Your task to perform on an android device: turn off location history Image 0: 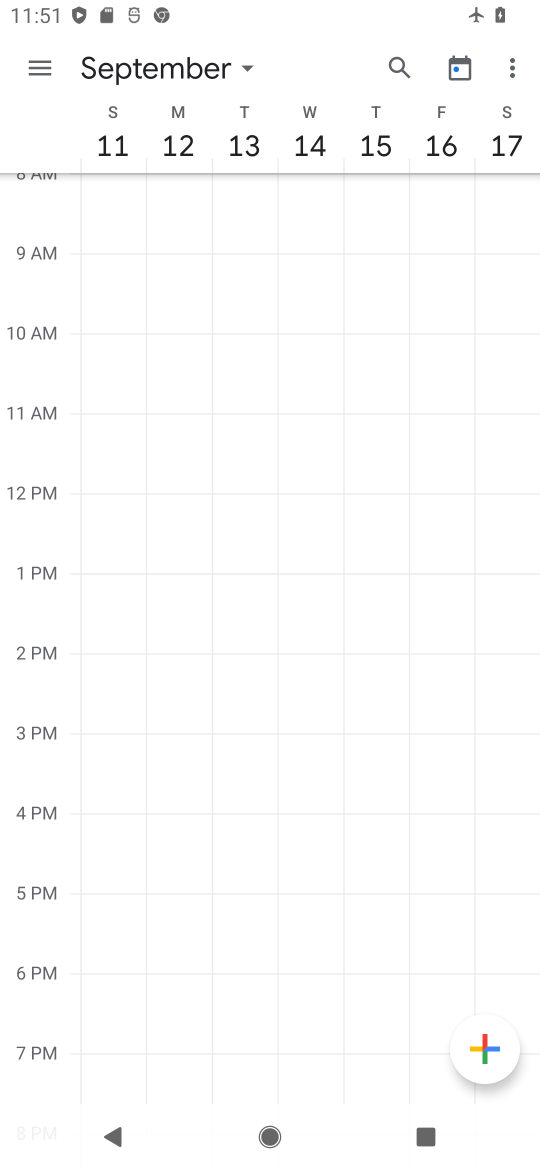
Step 0: press home button
Your task to perform on an android device: turn off location history Image 1: 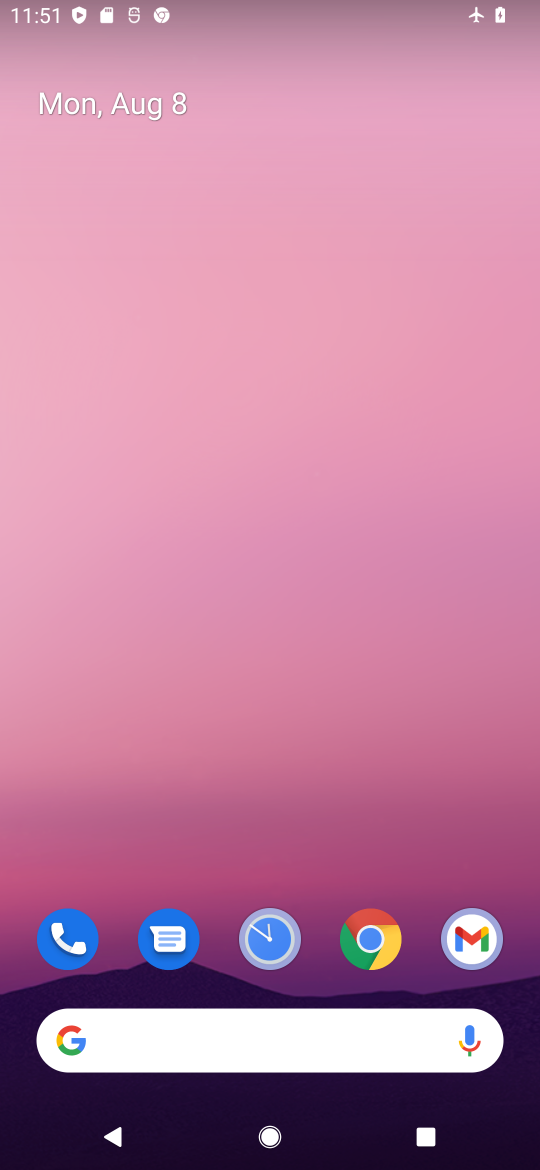
Step 1: drag from (201, 1025) to (439, 48)
Your task to perform on an android device: turn off location history Image 2: 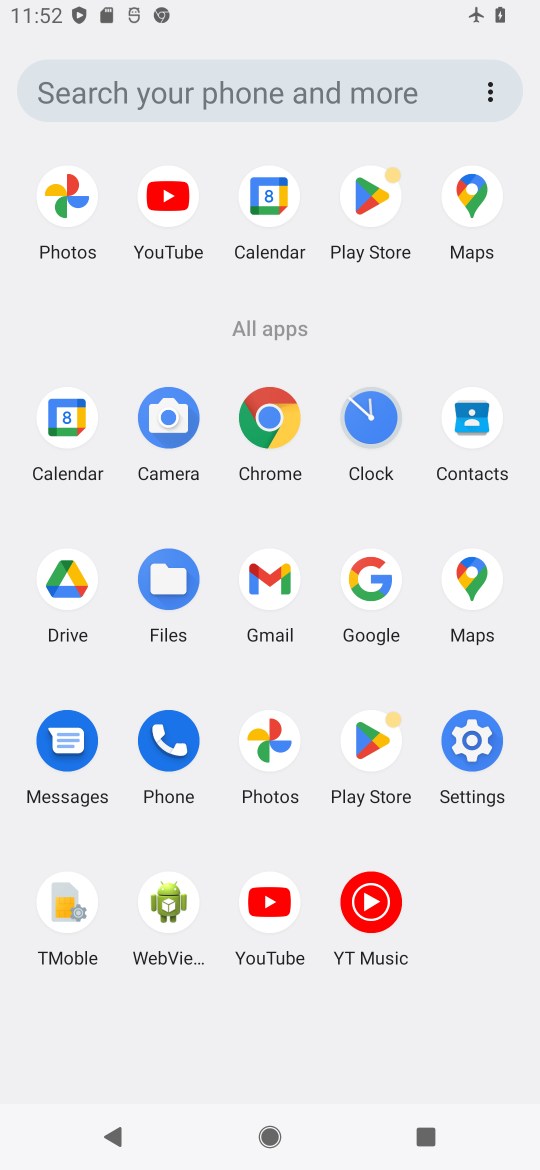
Step 2: click (472, 733)
Your task to perform on an android device: turn off location history Image 3: 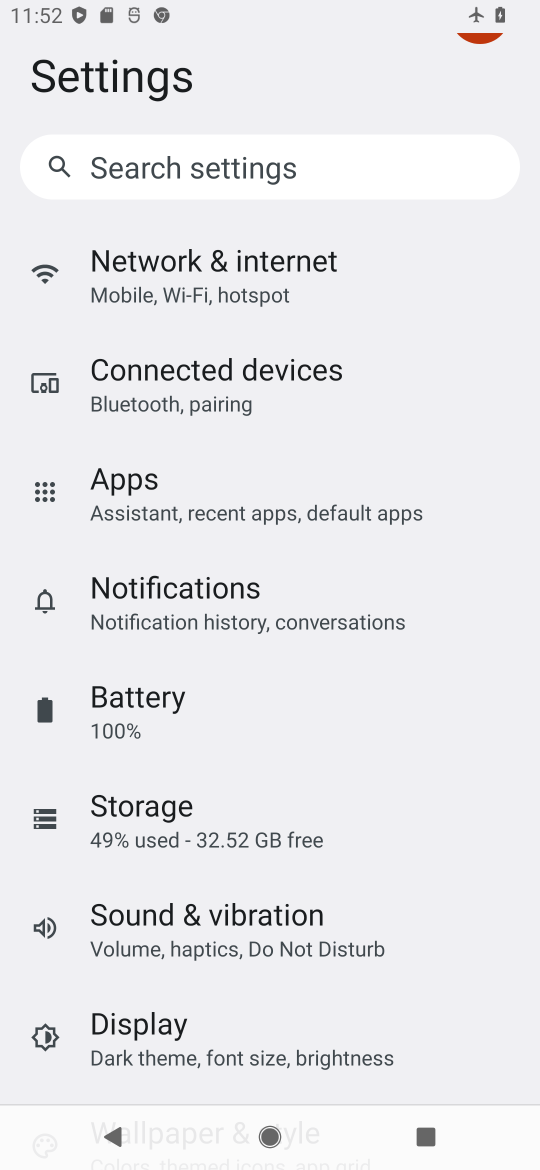
Step 3: drag from (182, 1032) to (346, 835)
Your task to perform on an android device: turn off location history Image 4: 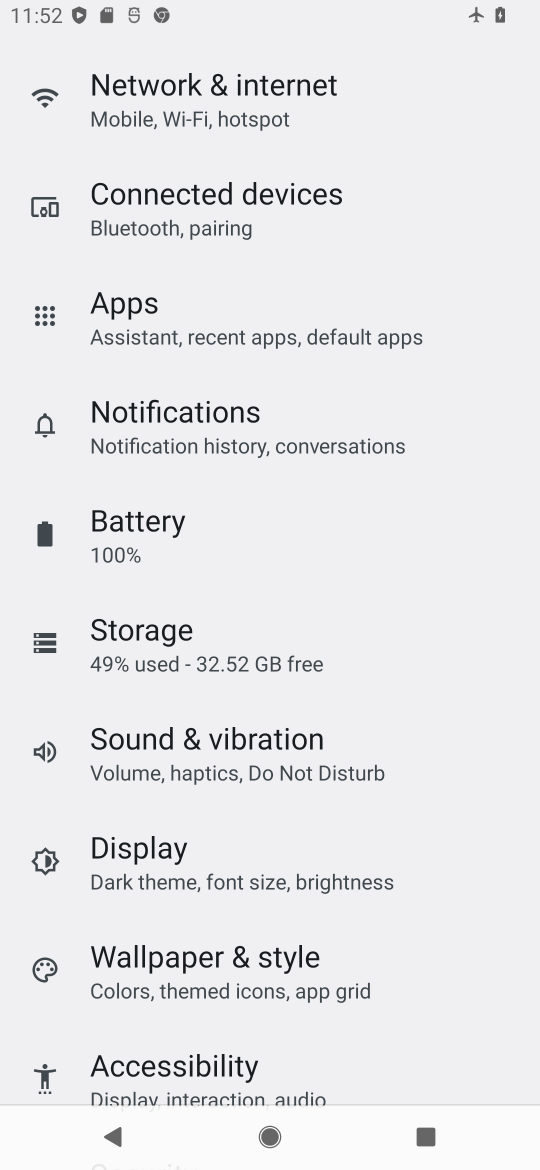
Step 4: drag from (190, 944) to (315, 752)
Your task to perform on an android device: turn off location history Image 5: 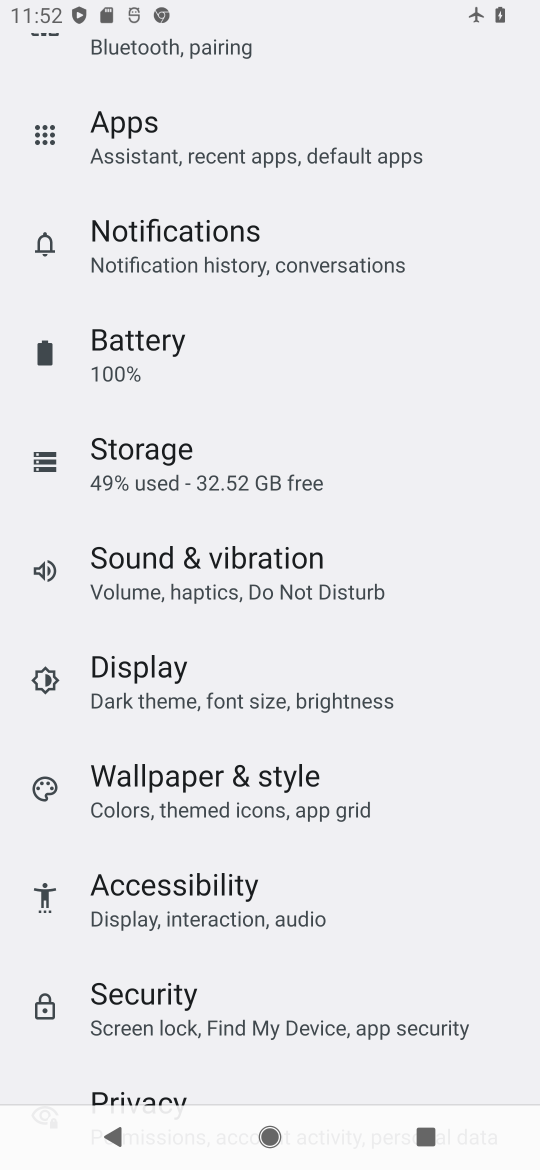
Step 5: drag from (295, 1062) to (480, 677)
Your task to perform on an android device: turn off location history Image 6: 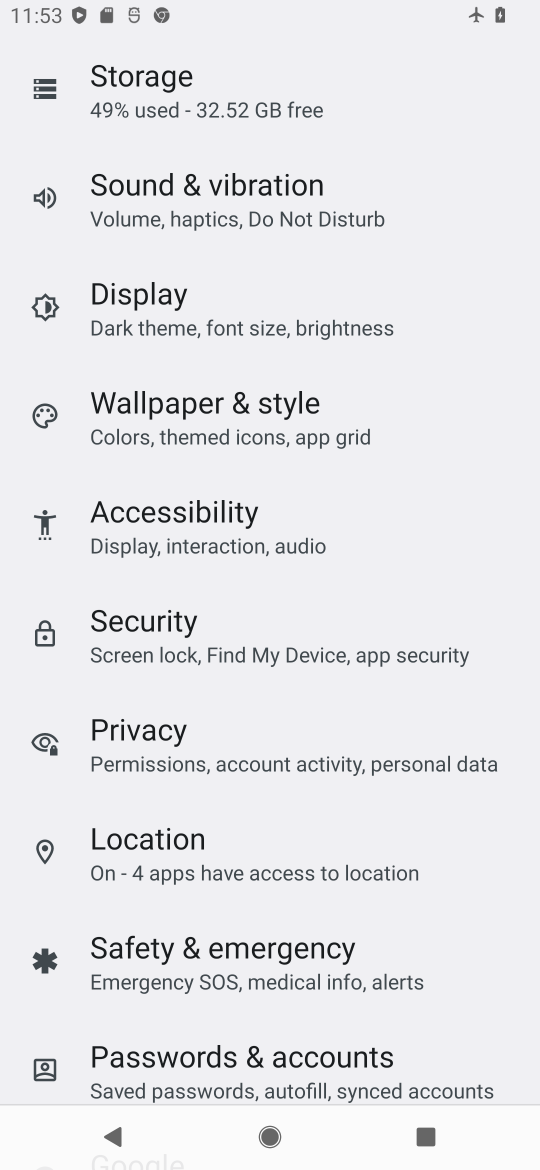
Step 6: click (226, 863)
Your task to perform on an android device: turn off location history Image 7: 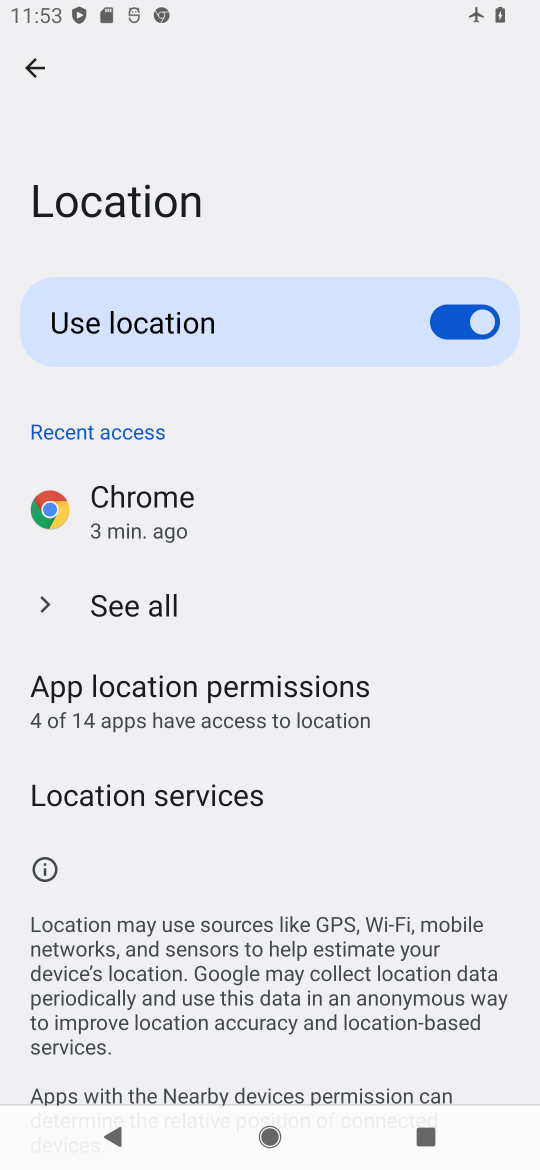
Step 7: click (204, 791)
Your task to perform on an android device: turn off location history Image 8: 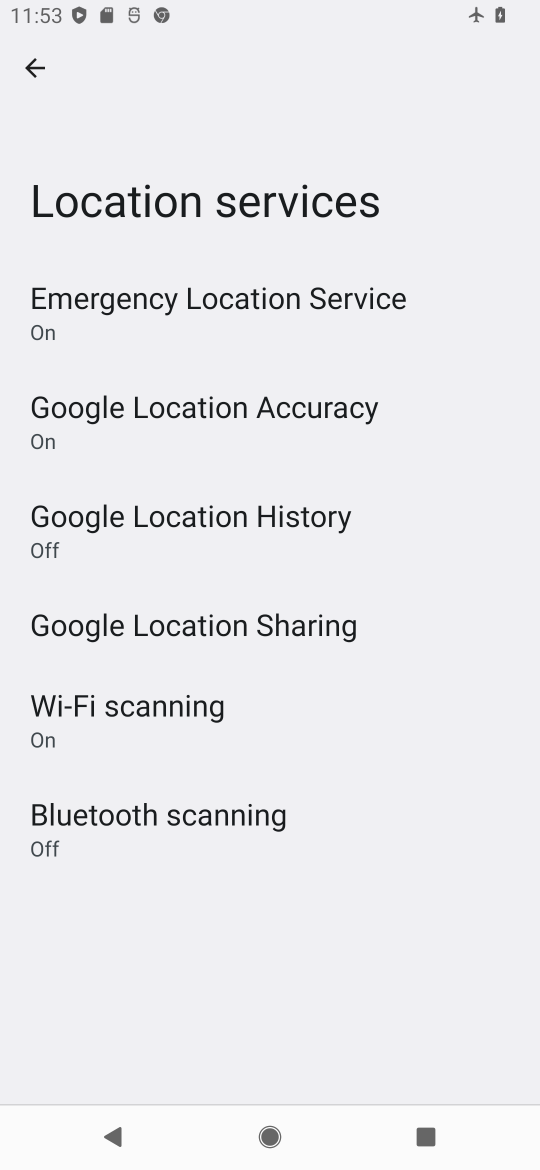
Step 8: click (202, 523)
Your task to perform on an android device: turn off location history Image 9: 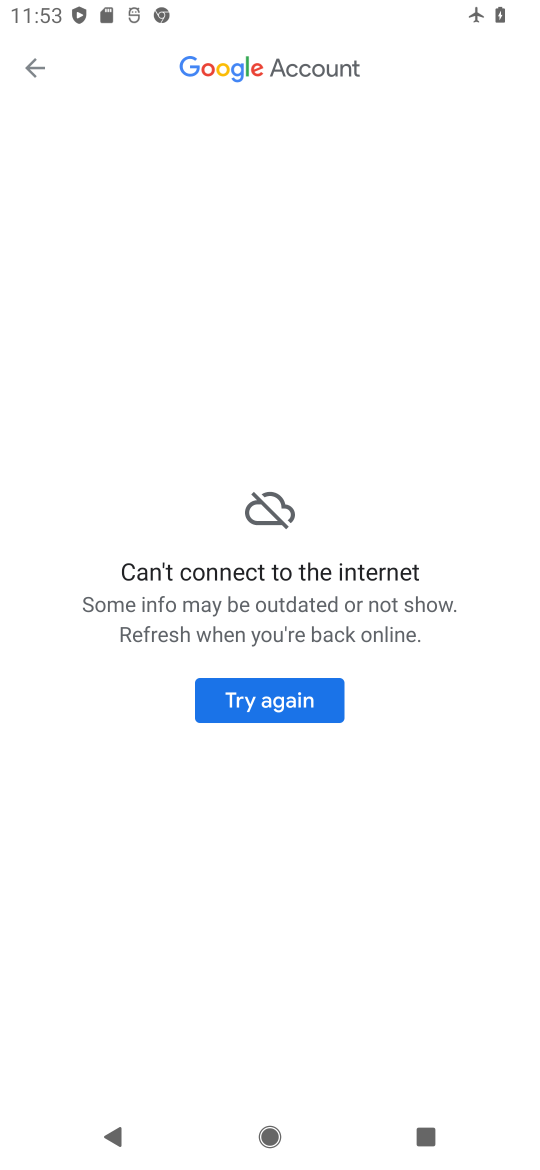
Step 9: task complete